Your task to perform on an android device: Open the calendar and show me this week's events? Image 0: 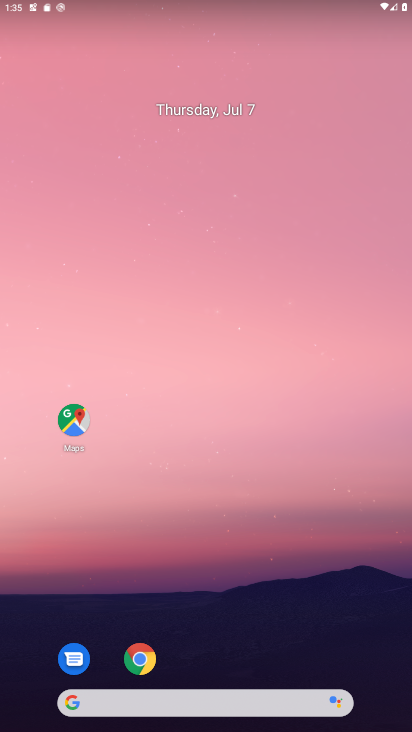
Step 0: drag from (209, 672) to (179, 159)
Your task to perform on an android device: Open the calendar and show me this week's events? Image 1: 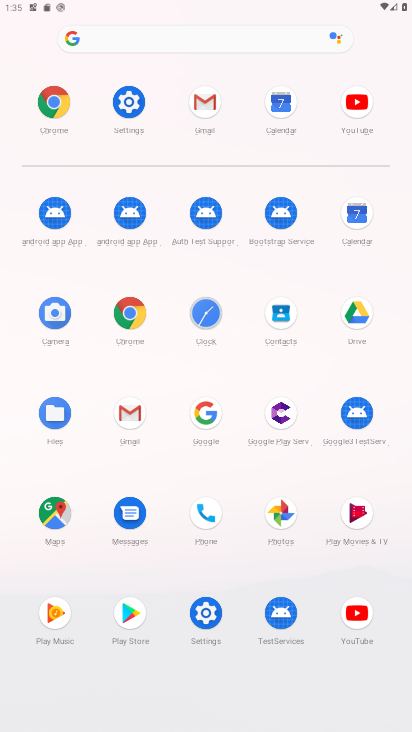
Step 1: click (363, 201)
Your task to perform on an android device: Open the calendar and show me this week's events? Image 2: 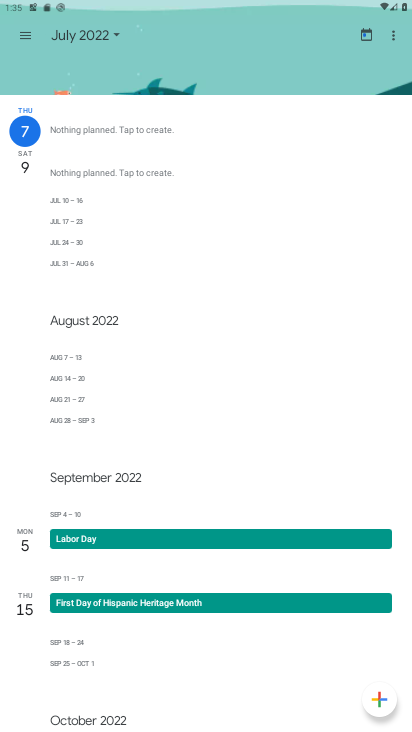
Step 2: drag from (232, 420) to (249, 167)
Your task to perform on an android device: Open the calendar and show me this week's events? Image 3: 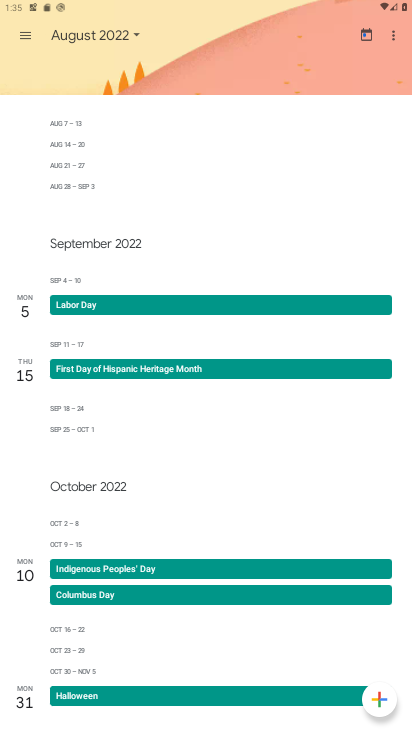
Step 3: click (104, 32)
Your task to perform on an android device: Open the calendar and show me this week's events? Image 4: 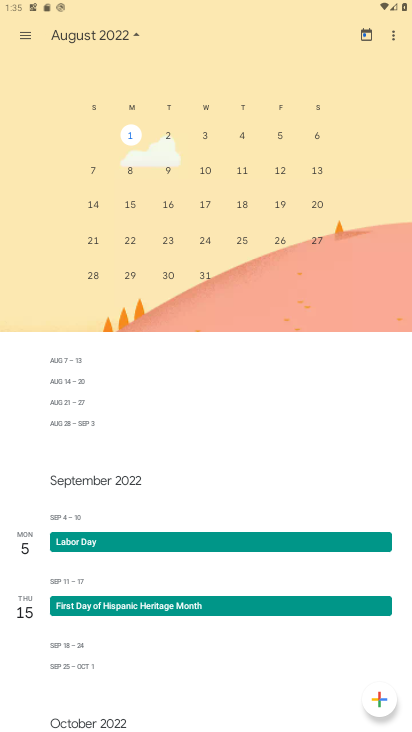
Step 4: drag from (66, 186) to (379, 117)
Your task to perform on an android device: Open the calendar and show me this week's events? Image 5: 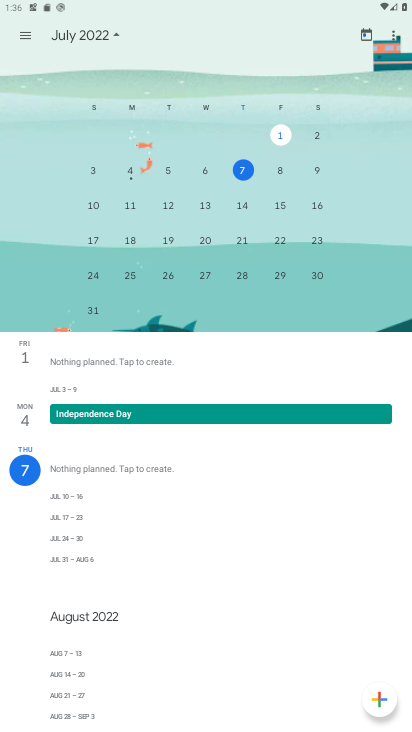
Step 5: click (315, 175)
Your task to perform on an android device: Open the calendar and show me this week's events? Image 6: 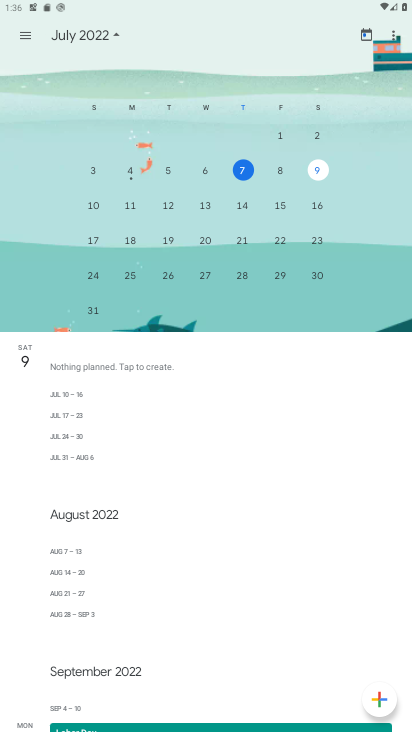
Step 6: task complete